Your task to perform on an android device: check the backup settings in the google photos Image 0: 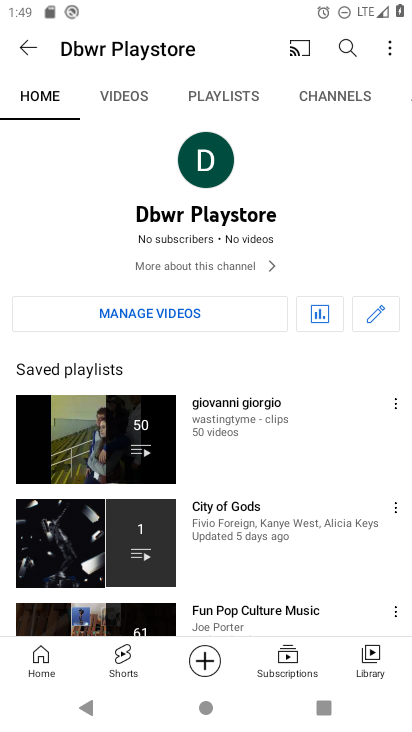
Step 0: press home button
Your task to perform on an android device: check the backup settings in the google photos Image 1: 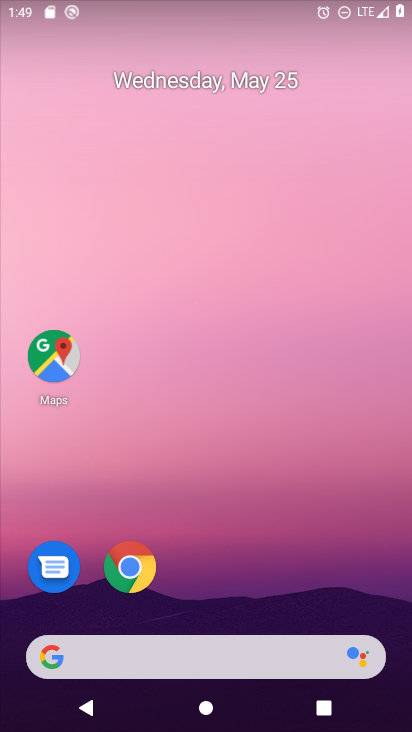
Step 1: drag from (392, 697) to (363, 329)
Your task to perform on an android device: check the backup settings in the google photos Image 2: 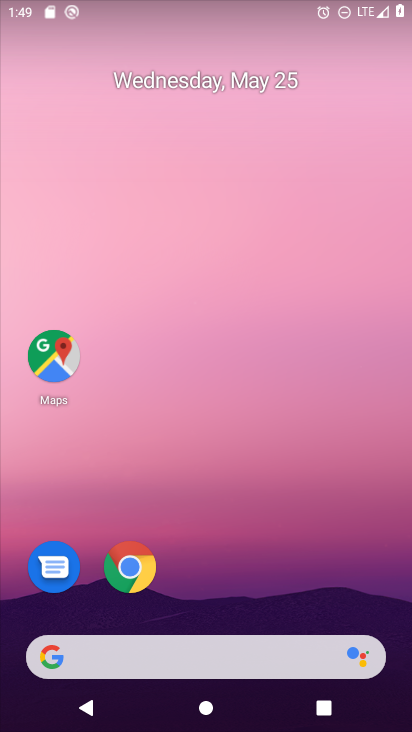
Step 2: drag from (391, 706) to (330, 297)
Your task to perform on an android device: check the backup settings in the google photos Image 3: 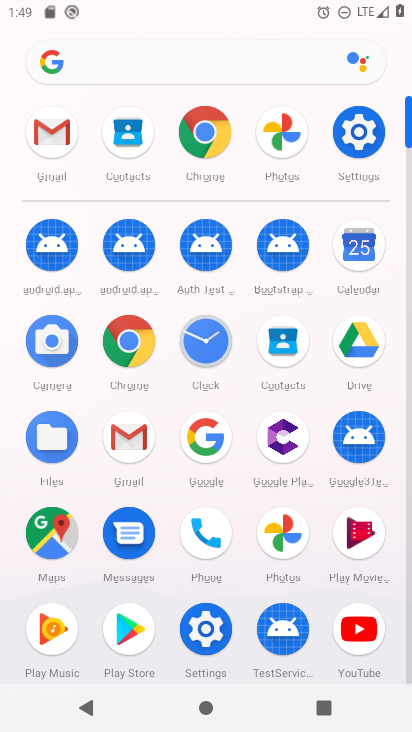
Step 3: click (279, 544)
Your task to perform on an android device: check the backup settings in the google photos Image 4: 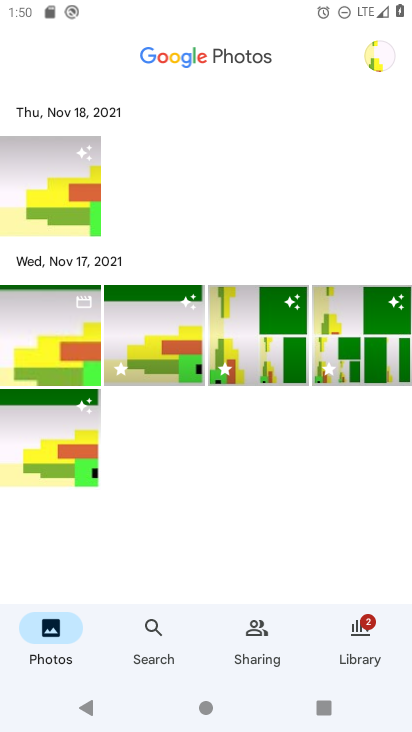
Step 4: task complete